Your task to perform on an android device: move a message to another label in the gmail app Image 0: 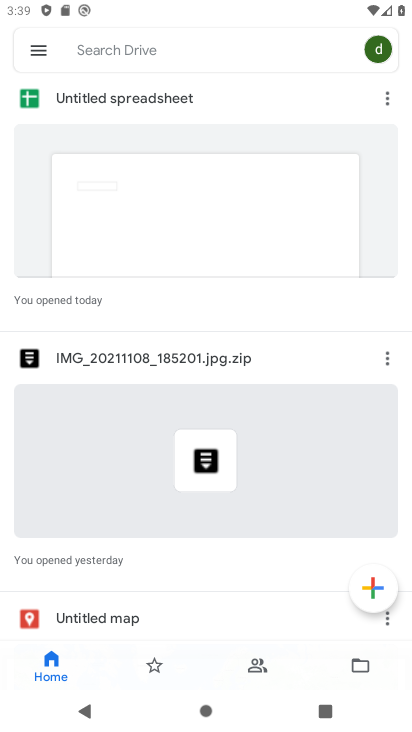
Step 0: press home button
Your task to perform on an android device: move a message to another label in the gmail app Image 1: 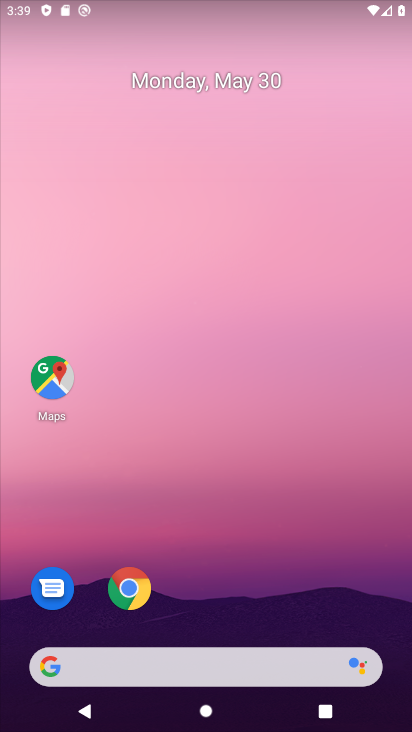
Step 1: drag from (373, 615) to (314, 67)
Your task to perform on an android device: move a message to another label in the gmail app Image 2: 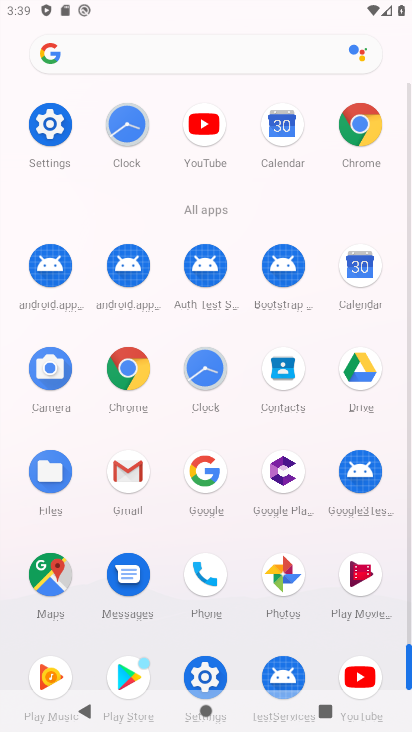
Step 2: click (124, 472)
Your task to perform on an android device: move a message to another label in the gmail app Image 3: 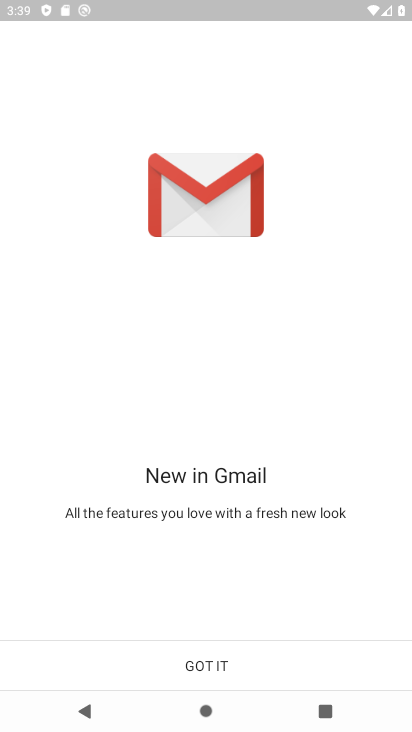
Step 3: click (203, 658)
Your task to perform on an android device: move a message to another label in the gmail app Image 4: 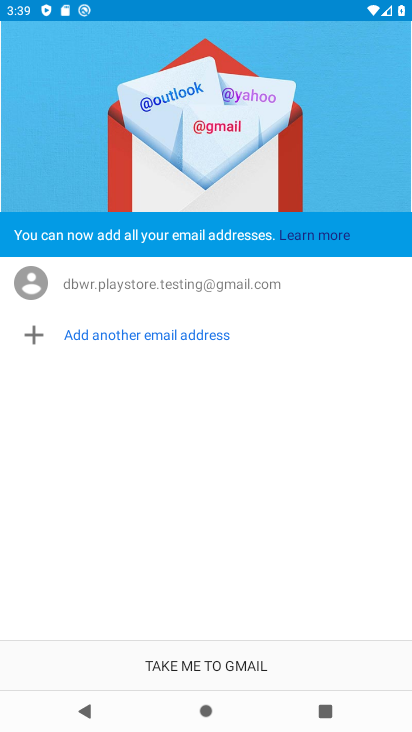
Step 4: click (203, 658)
Your task to perform on an android device: move a message to another label in the gmail app Image 5: 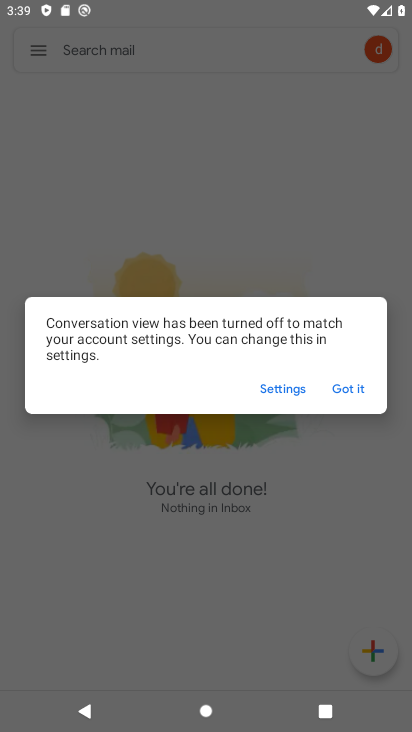
Step 5: click (347, 383)
Your task to perform on an android device: move a message to another label in the gmail app Image 6: 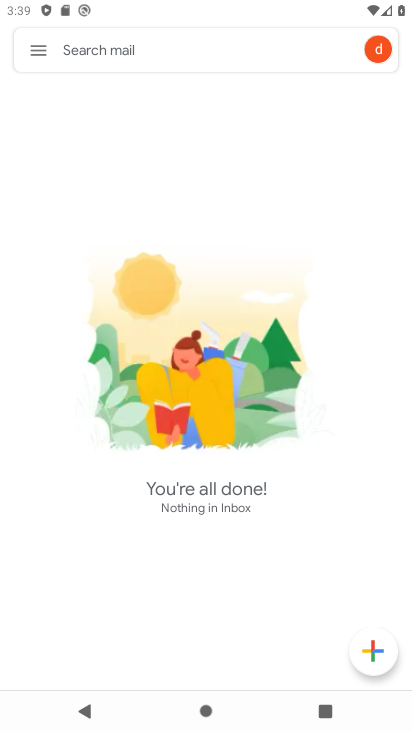
Step 6: click (37, 48)
Your task to perform on an android device: move a message to another label in the gmail app Image 7: 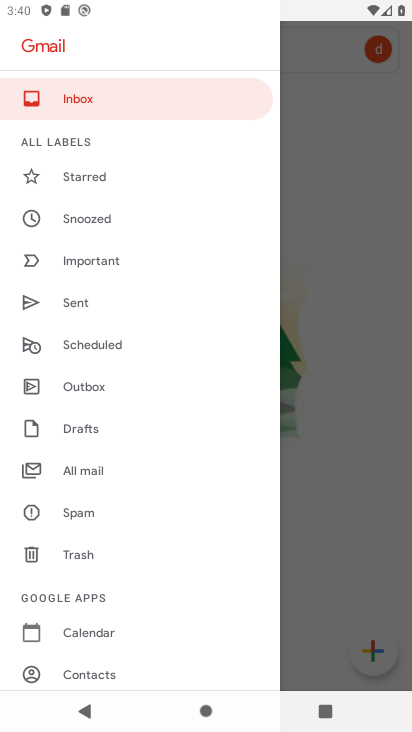
Step 7: click (86, 471)
Your task to perform on an android device: move a message to another label in the gmail app Image 8: 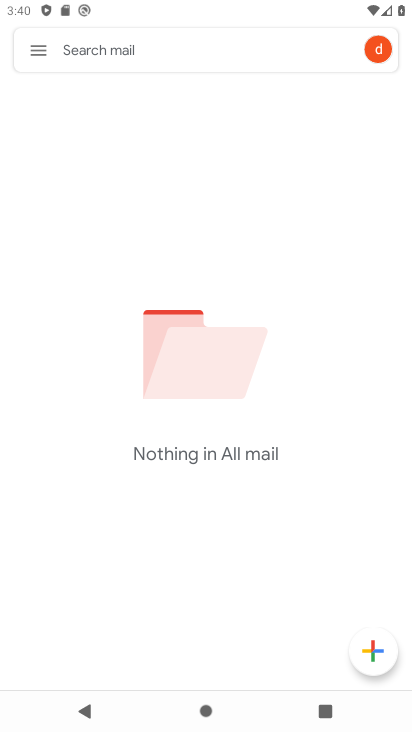
Step 8: task complete